Your task to perform on an android device: turn off sleep mode Image 0: 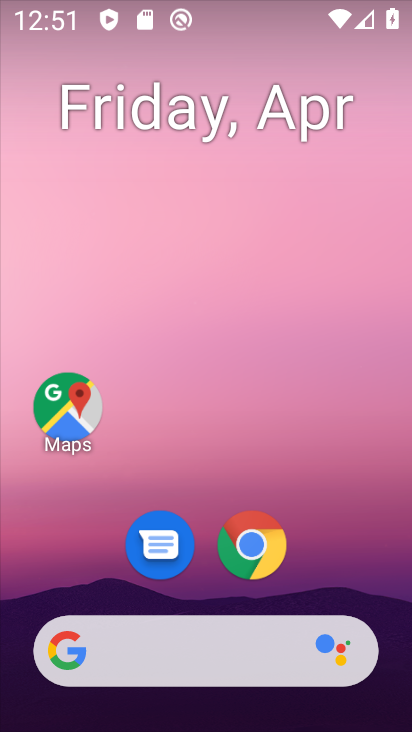
Step 0: drag from (292, 448) to (238, 23)
Your task to perform on an android device: turn off sleep mode Image 1: 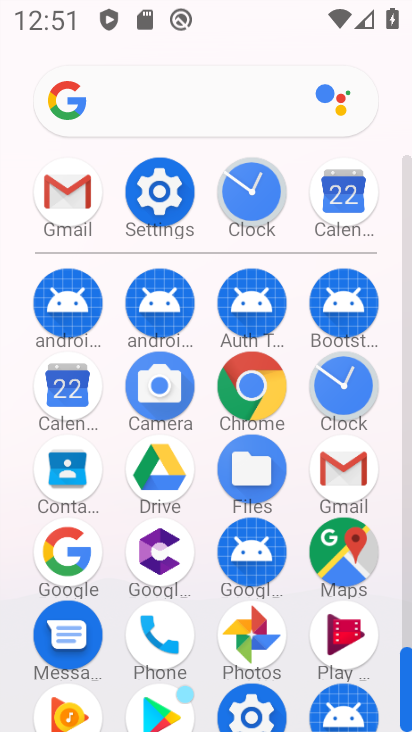
Step 1: click (159, 194)
Your task to perform on an android device: turn off sleep mode Image 2: 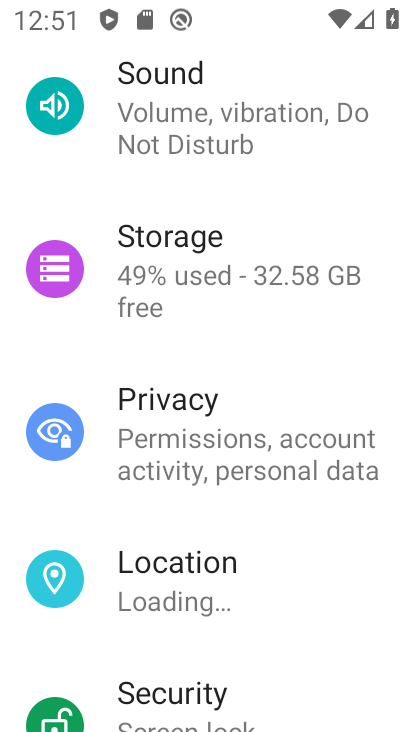
Step 2: drag from (285, 191) to (285, 646)
Your task to perform on an android device: turn off sleep mode Image 3: 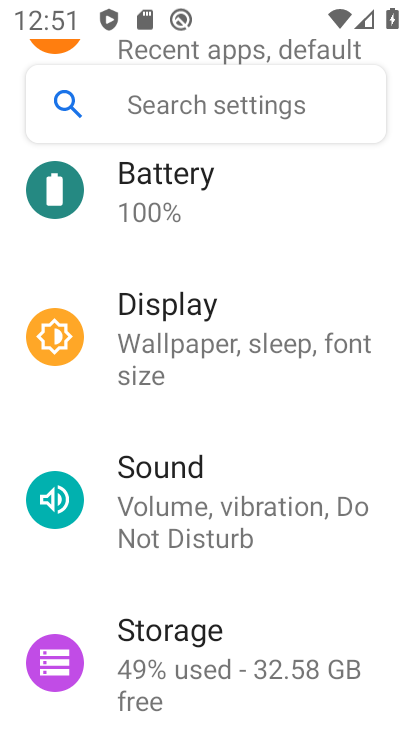
Step 3: click (243, 333)
Your task to perform on an android device: turn off sleep mode Image 4: 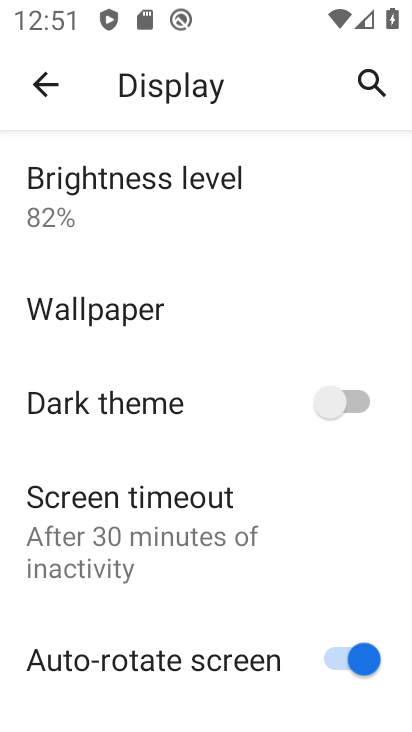
Step 4: drag from (264, 580) to (233, 195)
Your task to perform on an android device: turn off sleep mode Image 5: 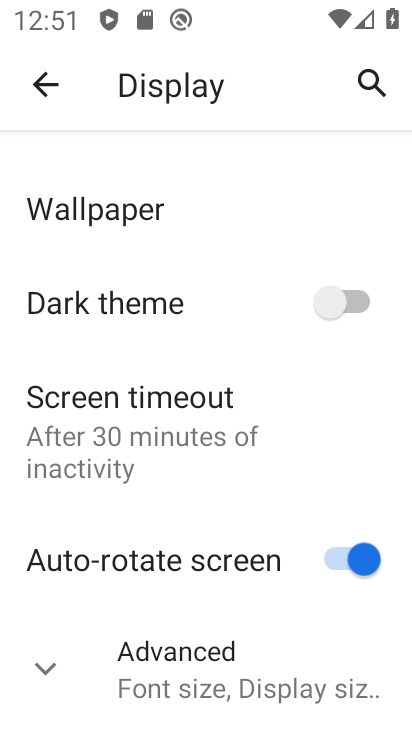
Step 5: click (216, 670)
Your task to perform on an android device: turn off sleep mode Image 6: 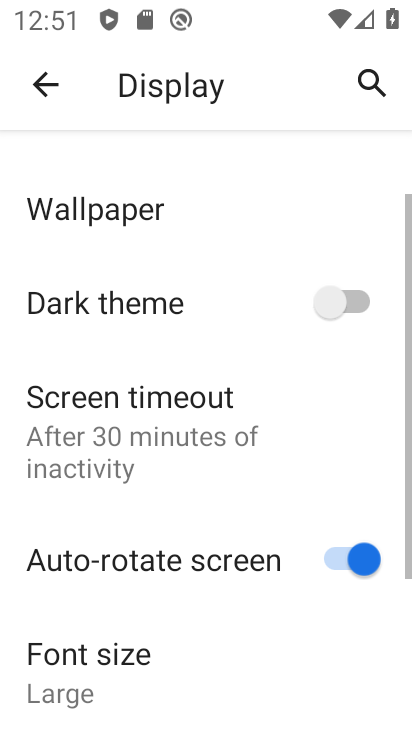
Step 6: task complete